Your task to perform on an android device: View the shopping cart on newegg.com. Image 0: 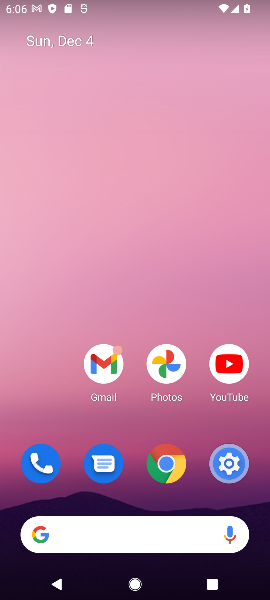
Step 0: click (151, 533)
Your task to perform on an android device: View the shopping cart on newegg.com. Image 1: 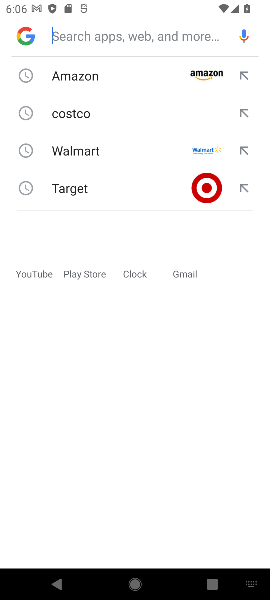
Step 1: type "newegg"
Your task to perform on an android device: View the shopping cart on newegg.com. Image 2: 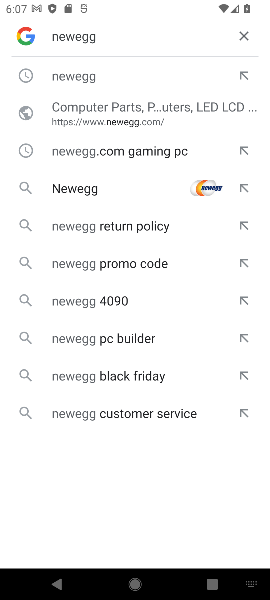
Step 2: click (116, 73)
Your task to perform on an android device: View the shopping cart on newegg.com. Image 3: 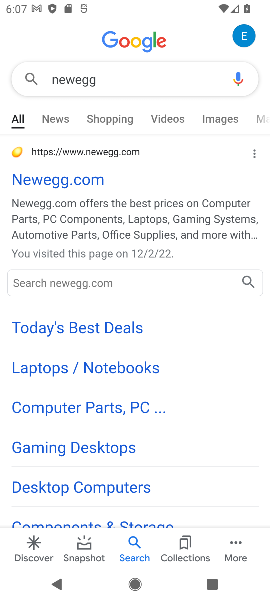
Step 3: click (37, 189)
Your task to perform on an android device: View the shopping cart on newegg.com. Image 4: 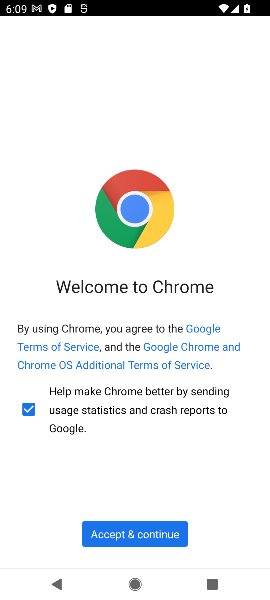
Step 4: click (151, 542)
Your task to perform on an android device: View the shopping cart on newegg.com. Image 5: 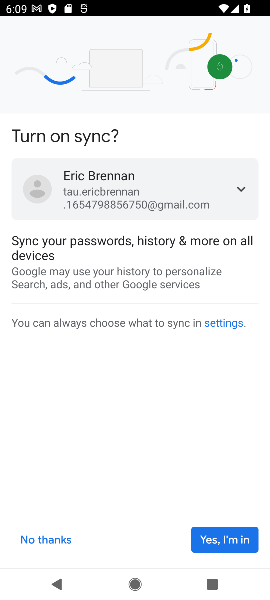
Step 5: click (223, 535)
Your task to perform on an android device: View the shopping cart on newegg.com. Image 6: 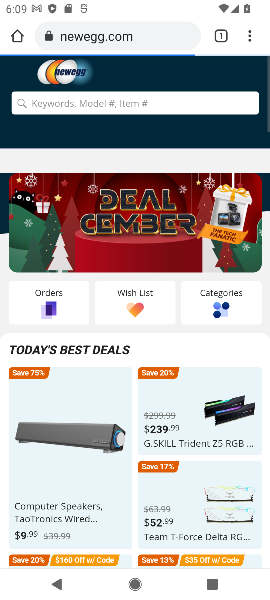
Step 6: task complete